Your task to perform on an android device: Search for Italian restaurants on Maps Image 0: 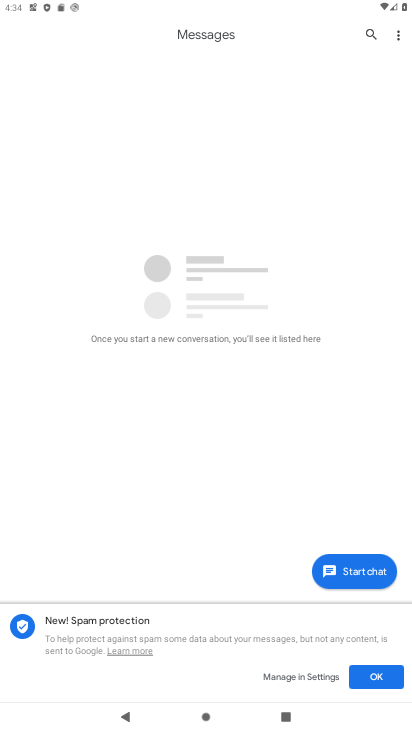
Step 0: press home button
Your task to perform on an android device: Search for Italian restaurants on Maps Image 1: 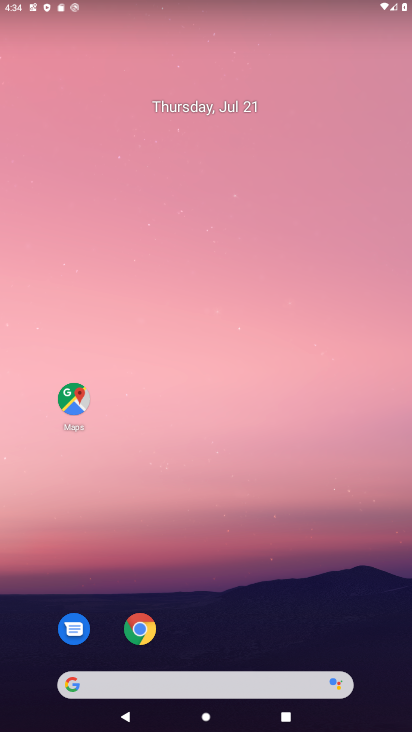
Step 1: drag from (303, 597) to (319, 96)
Your task to perform on an android device: Search for Italian restaurants on Maps Image 2: 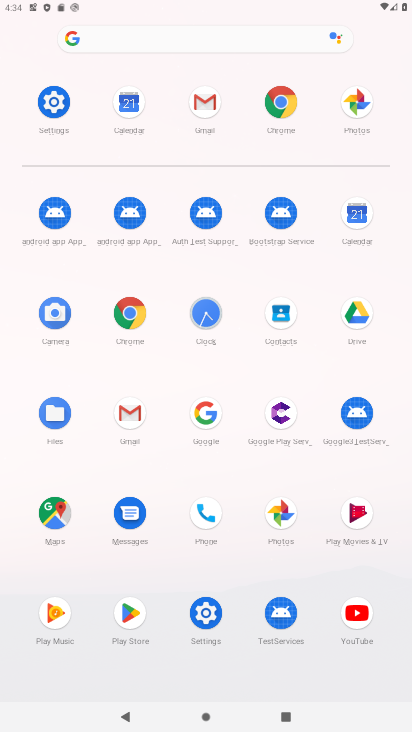
Step 2: click (55, 520)
Your task to perform on an android device: Search for Italian restaurants on Maps Image 3: 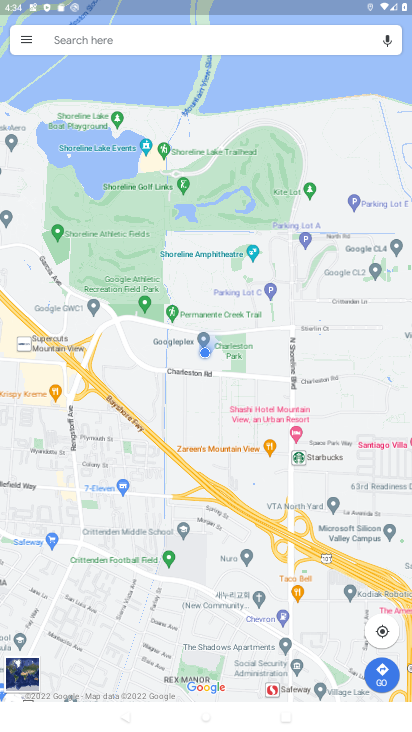
Step 3: click (107, 33)
Your task to perform on an android device: Search for Italian restaurants on Maps Image 4: 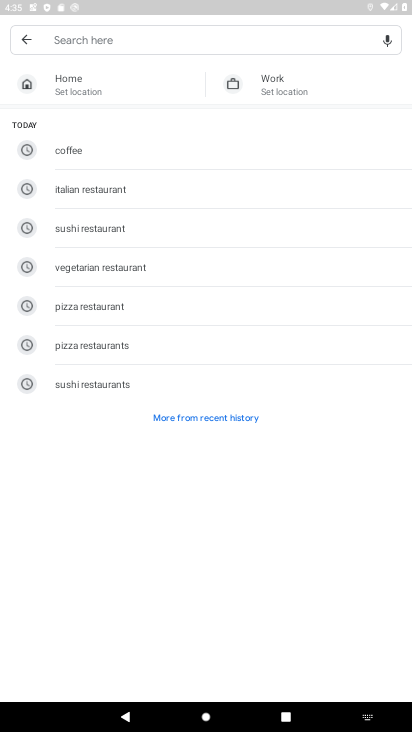
Step 4: type " Italian restaurants"
Your task to perform on an android device: Search for Italian restaurants on Maps Image 5: 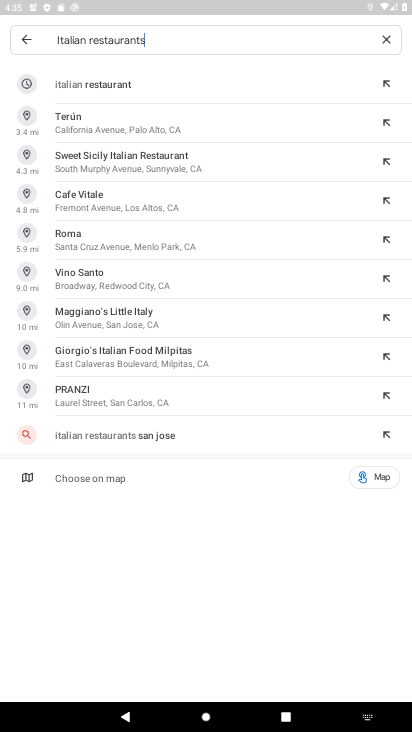
Step 5: click (116, 79)
Your task to perform on an android device: Search for Italian restaurants on Maps Image 6: 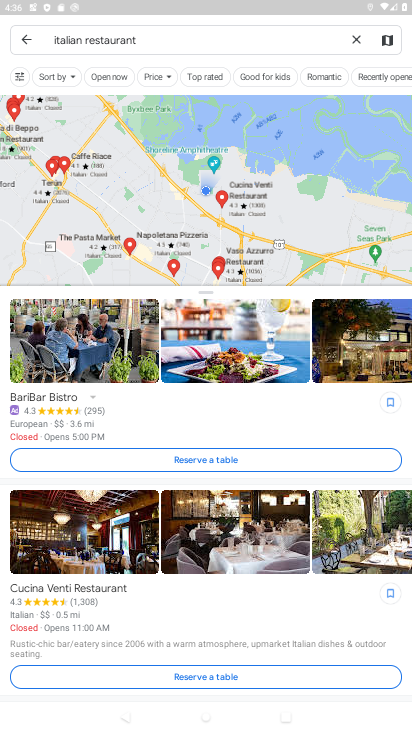
Step 6: task complete